Your task to perform on an android device: Go to Google maps Image 0: 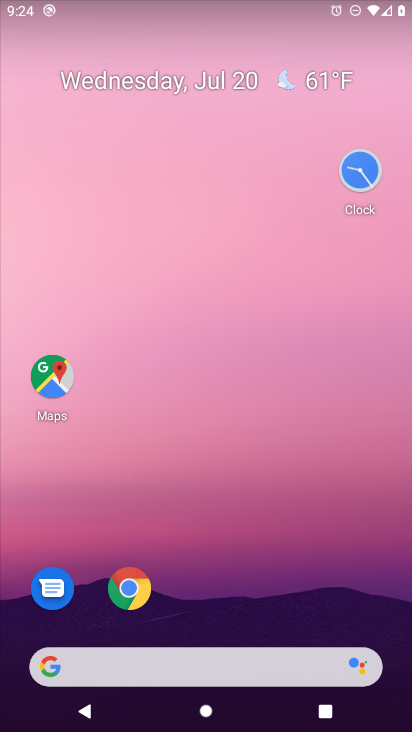
Step 0: click (68, 376)
Your task to perform on an android device: Go to Google maps Image 1: 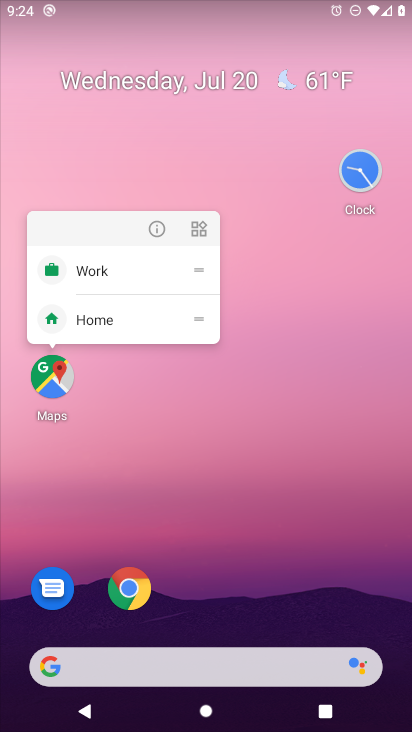
Step 1: click (52, 400)
Your task to perform on an android device: Go to Google maps Image 2: 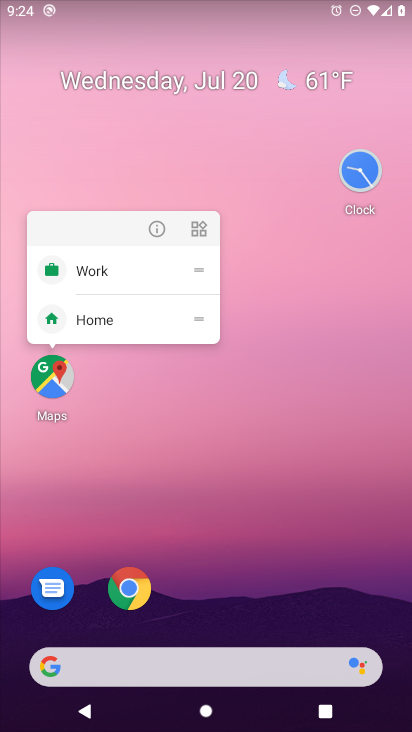
Step 2: click (44, 387)
Your task to perform on an android device: Go to Google maps Image 3: 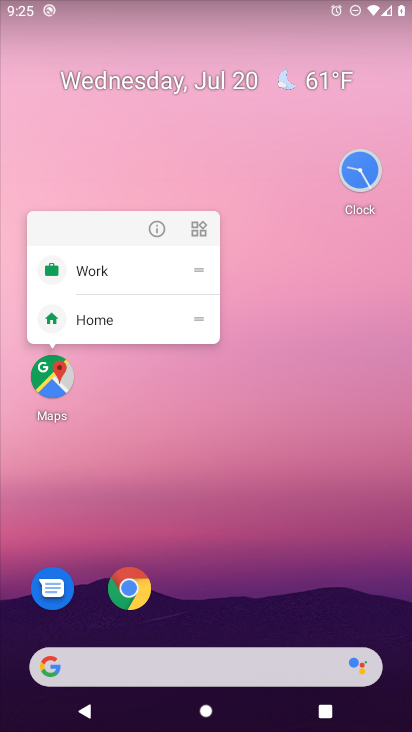
Step 3: click (46, 372)
Your task to perform on an android device: Go to Google maps Image 4: 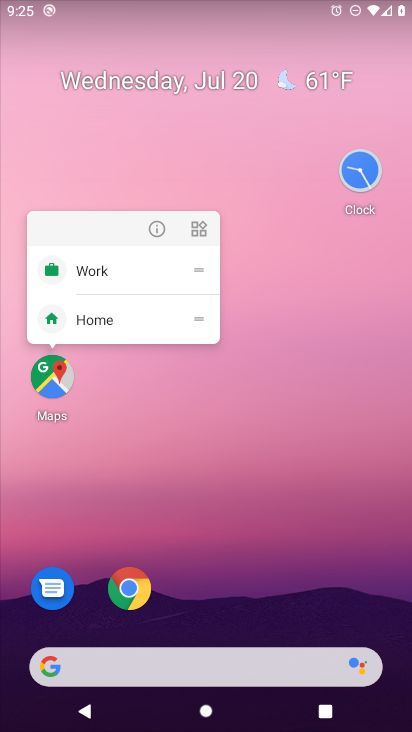
Step 4: click (46, 377)
Your task to perform on an android device: Go to Google maps Image 5: 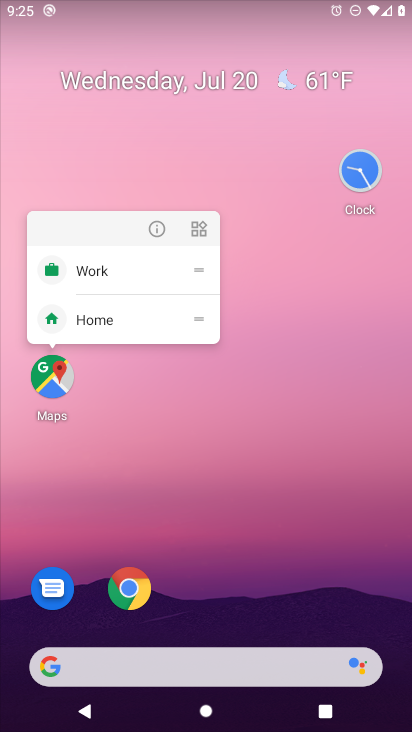
Step 5: task complete